Your task to perform on an android device: Search for Italian restaurants on Maps Image 0: 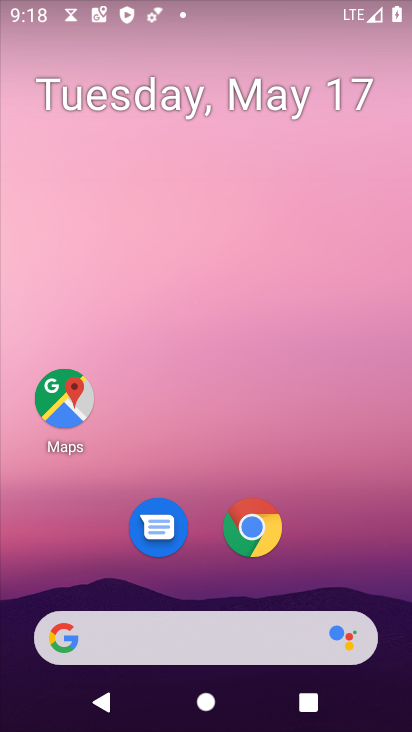
Step 0: click (57, 409)
Your task to perform on an android device: Search for Italian restaurants on Maps Image 1: 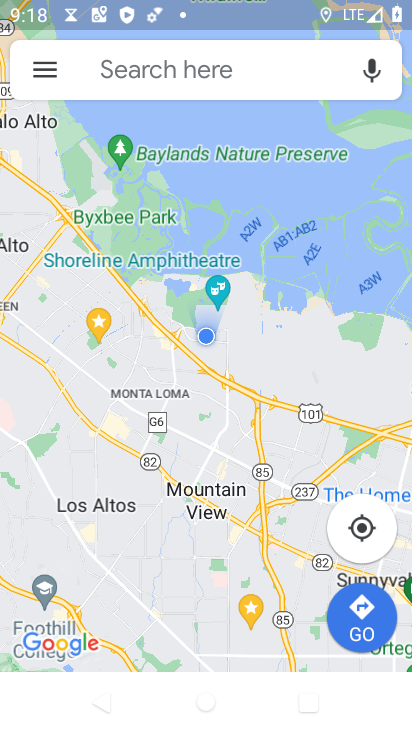
Step 1: click (283, 75)
Your task to perform on an android device: Search for Italian restaurants on Maps Image 2: 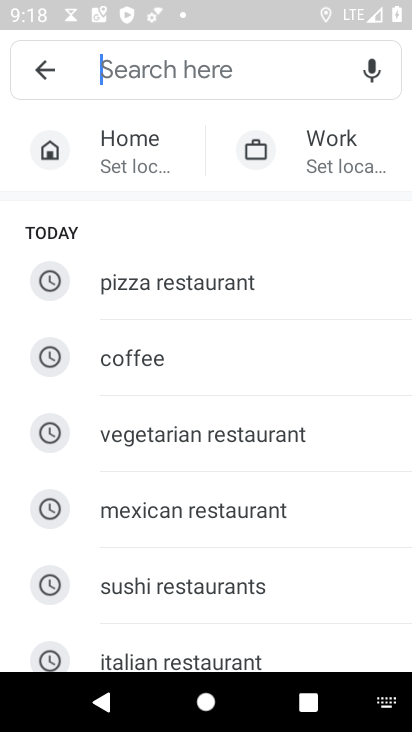
Step 2: click (233, 659)
Your task to perform on an android device: Search for Italian restaurants on Maps Image 3: 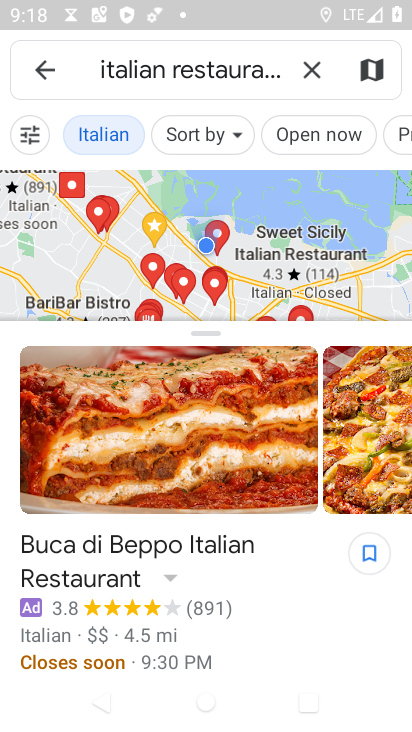
Step 3: task complete